Your task to perform on an android device: turn off priority inbox in the gmail app Image 0: 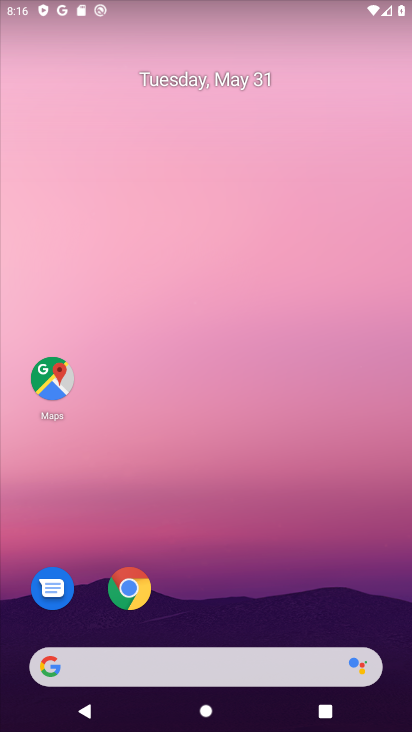
Step 0: drag from (235, 586) to (225, 192)
Your task to perform on an android device: turn off priority inbox in the gmail app Image 1: 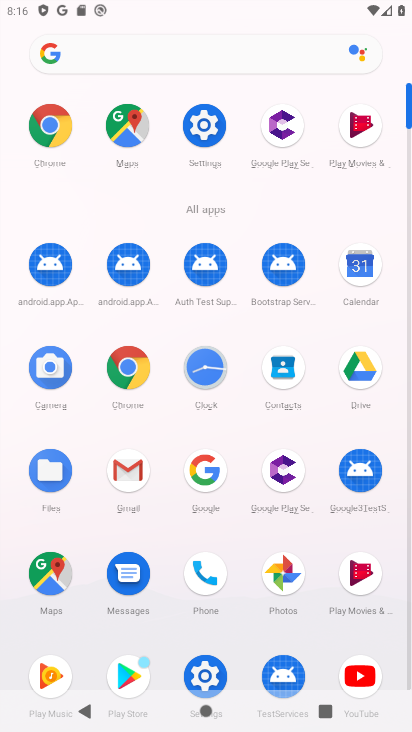
Step 1: click (136, 479)
Your task to perform on an android device: turn off priority inbox in the gmail app Image 2: 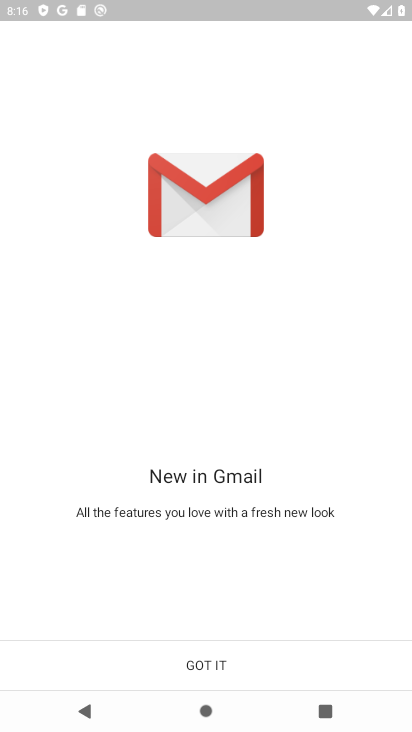
Step 2: click (206, 668)
Your task to perform on an android device: turn off priority inbox in the gmail app Image 3: 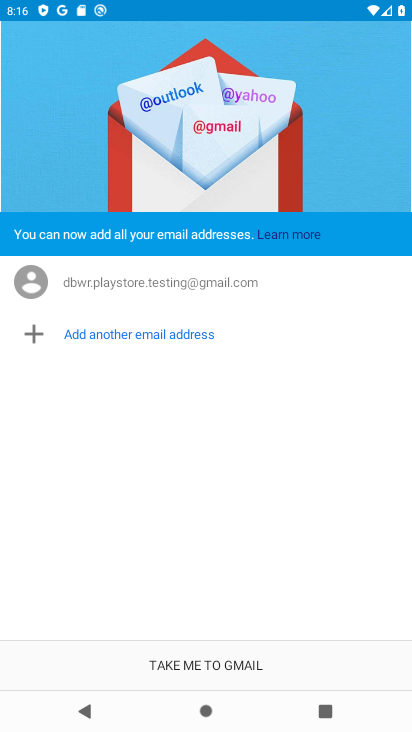
Step 3: click (206, 668)
Your task to perform on an android device: turn off priority inbox in the gmail app Image 4: 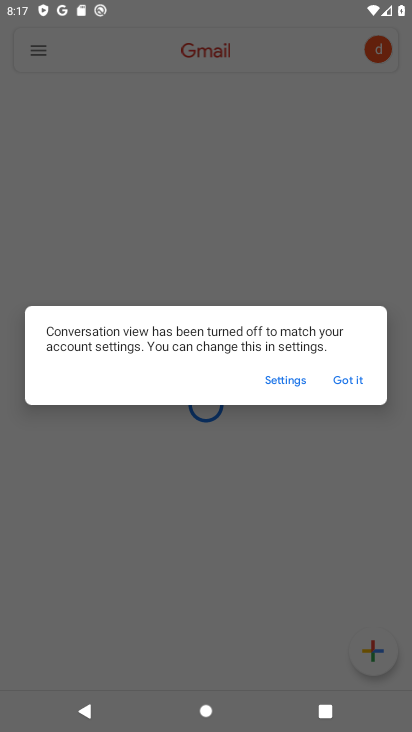
Step 4: click (354, 375)
Your task to perform on an android device: turn off priority inbox in the gmail app Image 5: 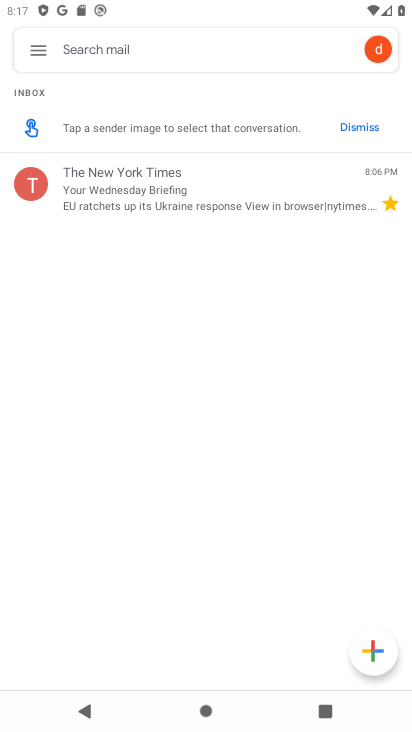
Step 5: click (37, 50)
Your task to perform on an android device: turn off priority inbox in the gmail app Image 6: 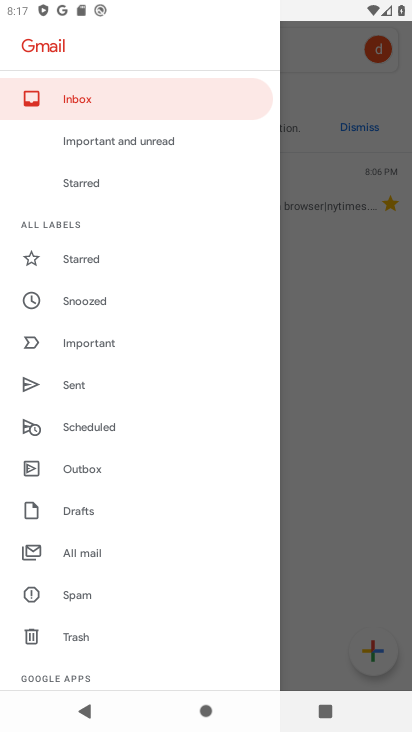
Step 6: drag from (102, 659) to (89, 251)
Your task to perform on an android device: turn off priority inbox in the gmail app Image 7: 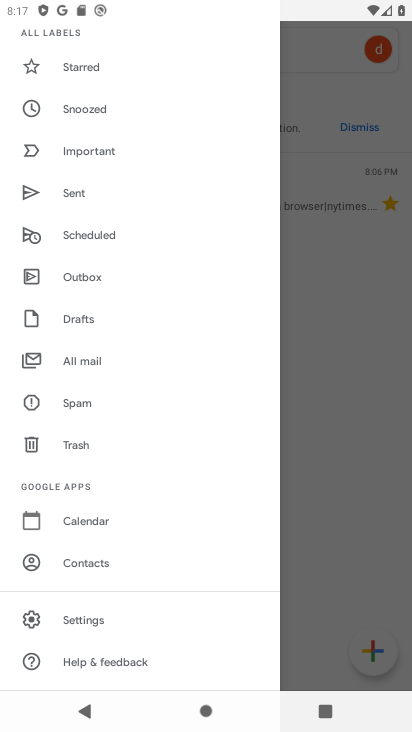
Step 7: click (83, 631)
Your task to perform on an android device: turn off priority inbox in the gmail app Image 8: 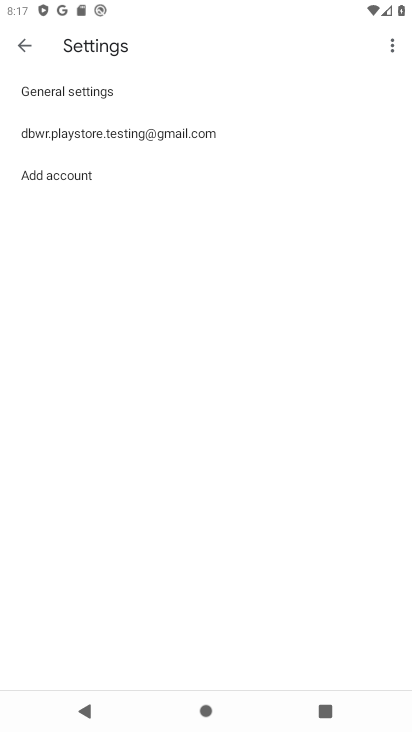
Step 8: click (142, 138)
Your task to perform on an android device: turn off priority inbox in the gmail app Image 9: 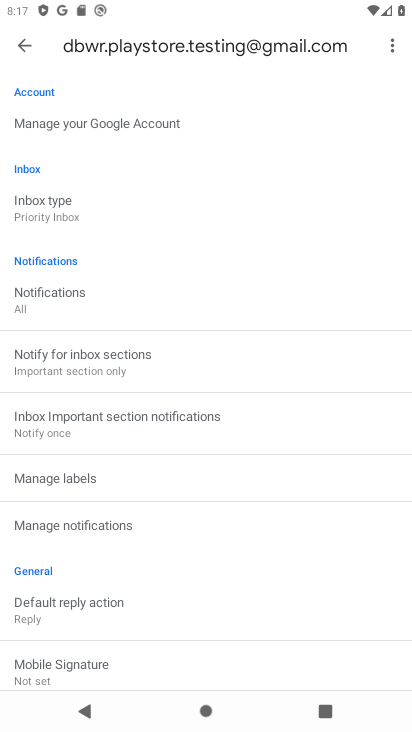
Step 9: click (124, 203)
Your task to perform on an android device: turn off priority inbox in the gmail app Image 10: 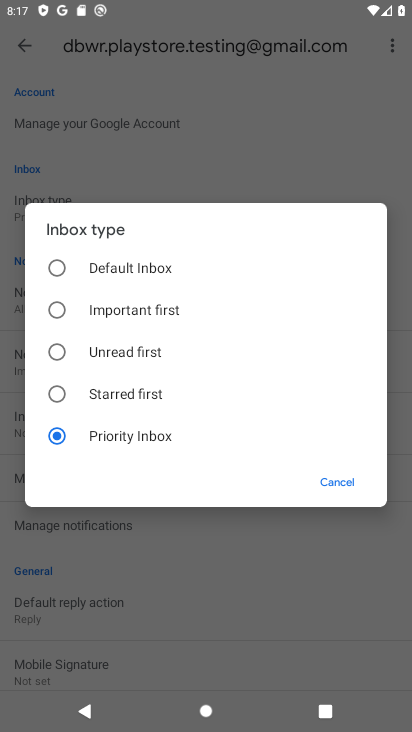
Step 10: click (132, 267)
Your task to perform on an android device: turn off priority inbox in the gmail app Image 11: 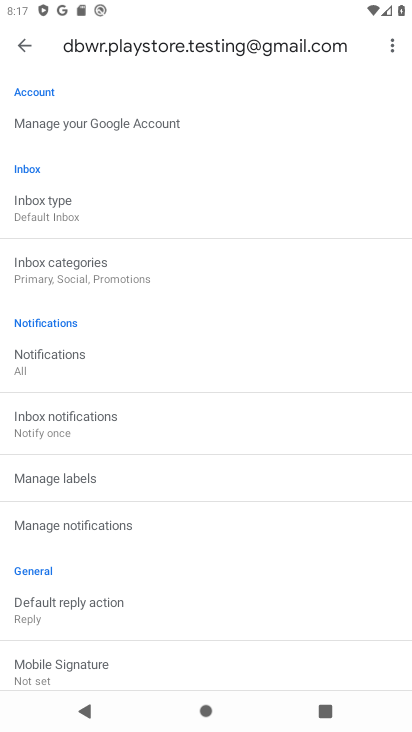
Step 11: task complete